Your task to perform on an android device: turn off notifications in google photos Image 0: 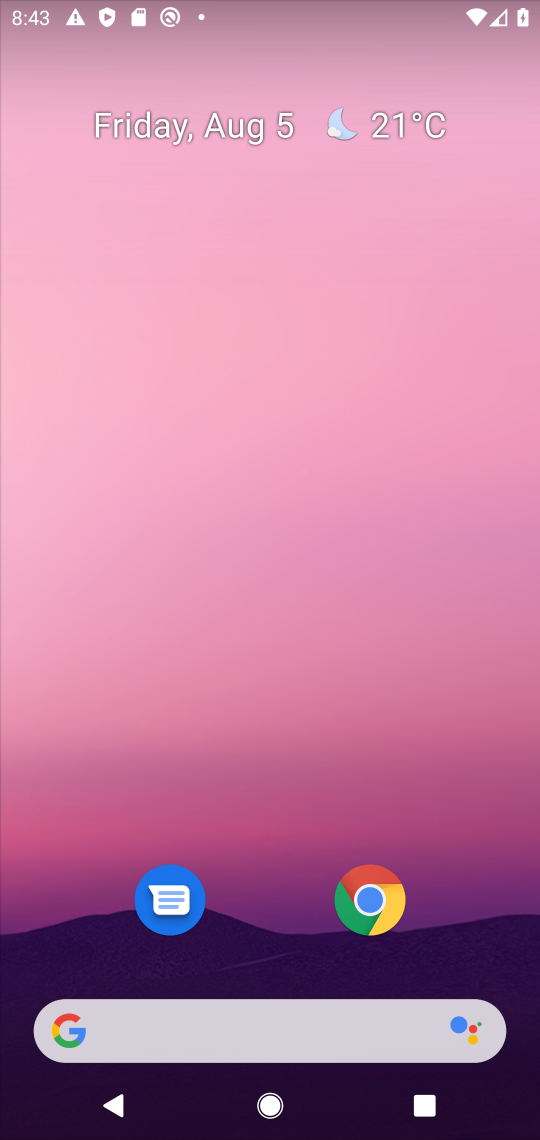
Step 0: press home button
Your task to perform on an android device: turn off notifications in google photos Image 1: 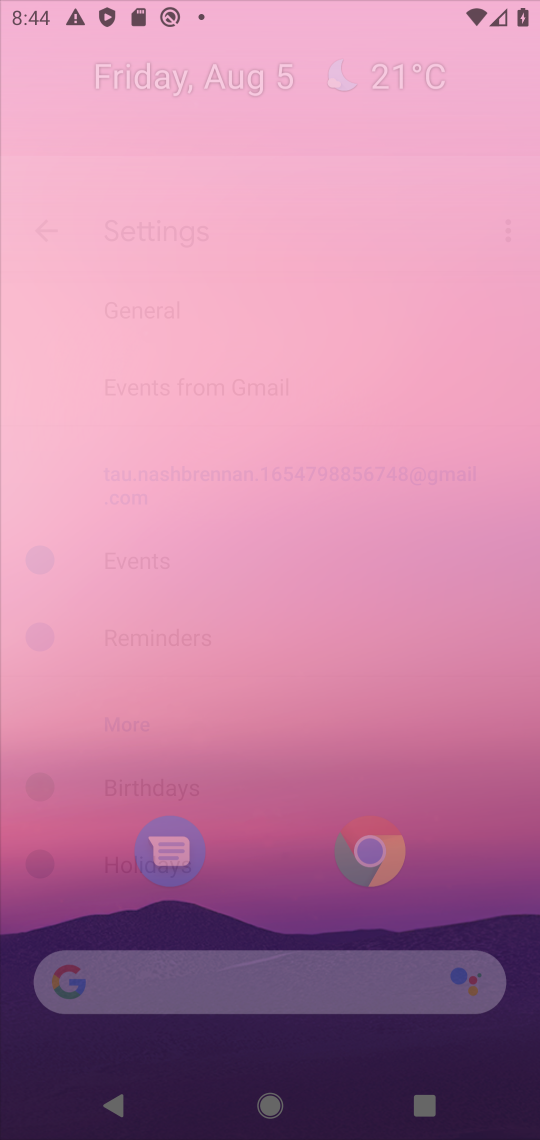
Step 1: click (378, 894)
Your task to perform on an android device: turn off notifications in google photos Image 2: 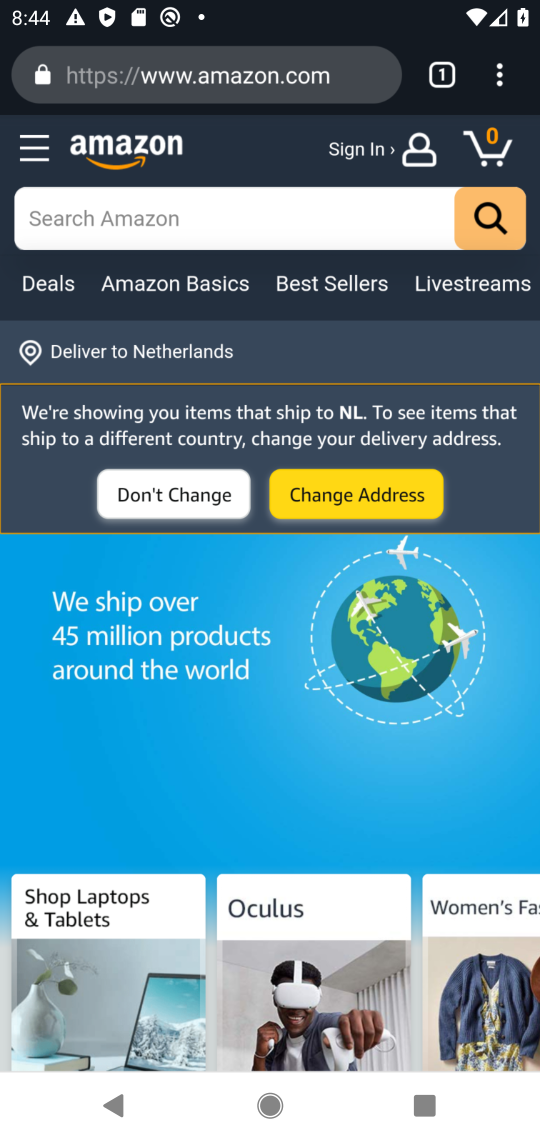
Step 2: press home button
Your task to perform on an android device: turn off notifications in google photos Image 3: 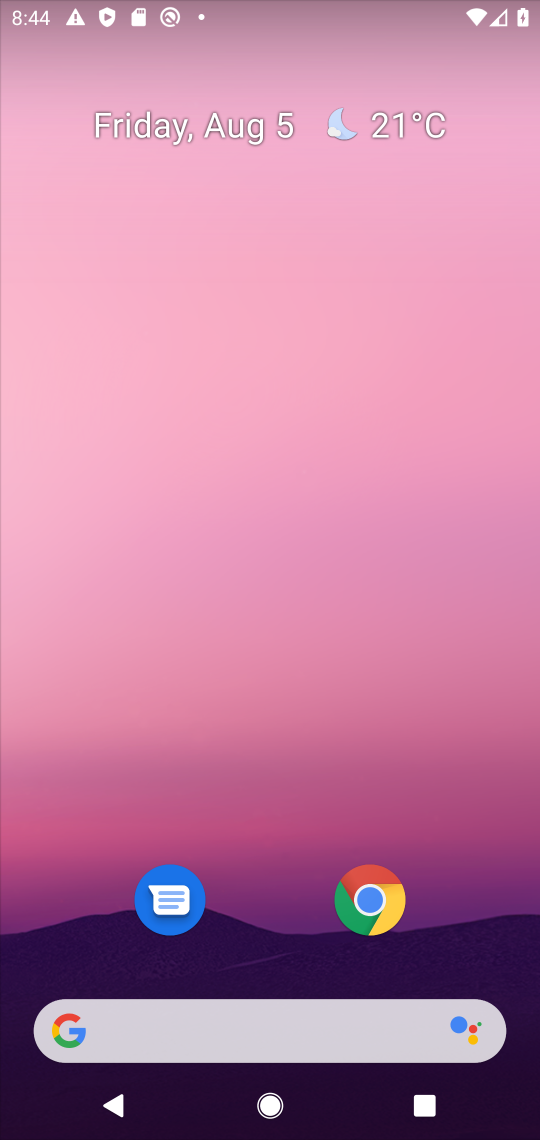
Step 3: click (355, 937)
Your task to perform on an android device: turn off notifications in google photos Image 4: 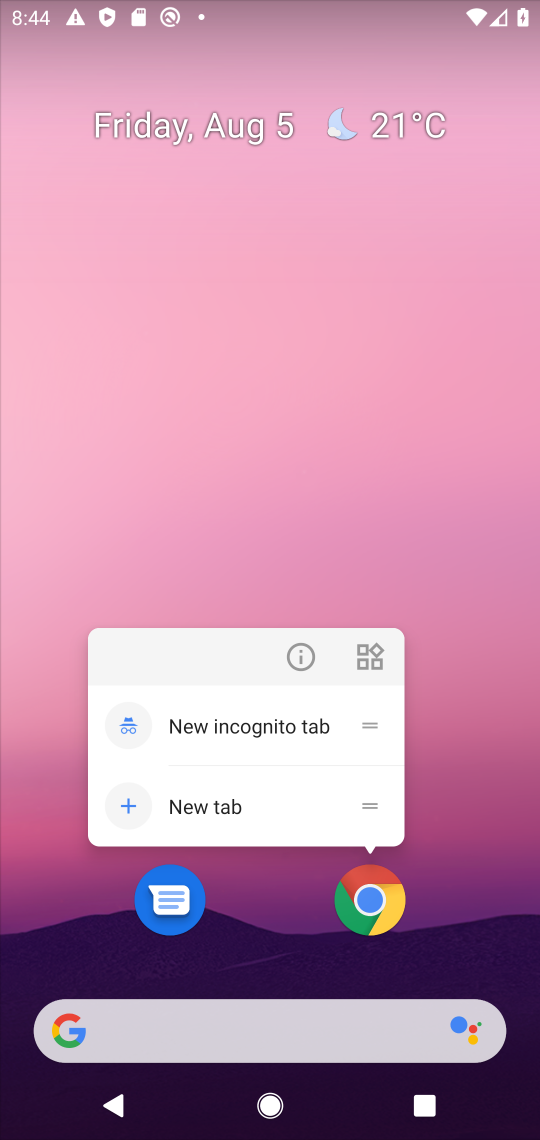
Step 4: click (261, 932)
Your task to perform on an android device: turn off notifications in google photos Image 5: 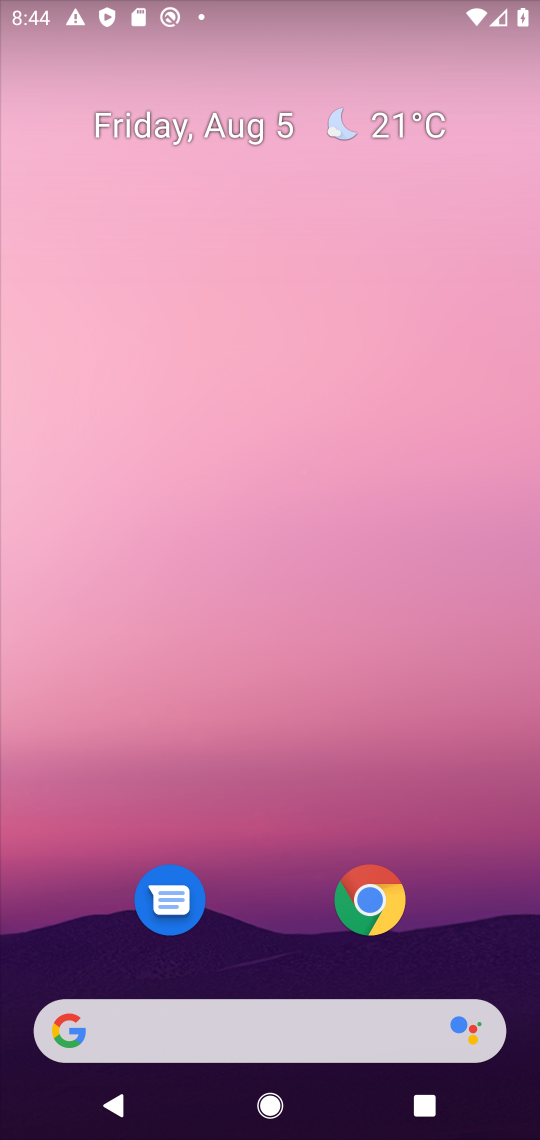
Step 5: drag from (261, 932) to (336, 72)
Your task to perform on an android device: turn off notifications in google photos Image 6: 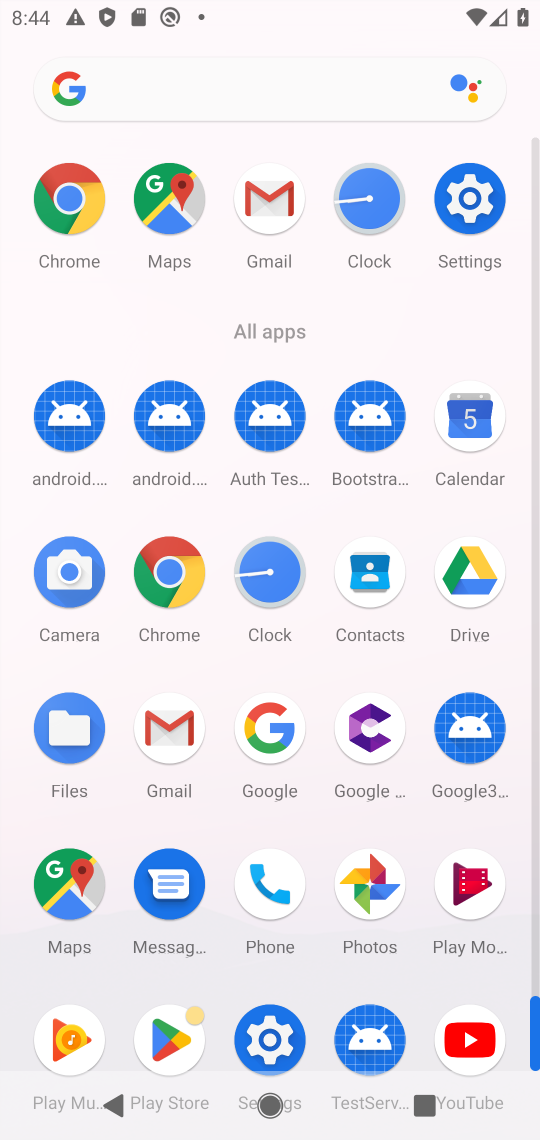
Step 6: click (344, 899)
Your task to perform on an android device: turn off notifications in google photos Image 7: 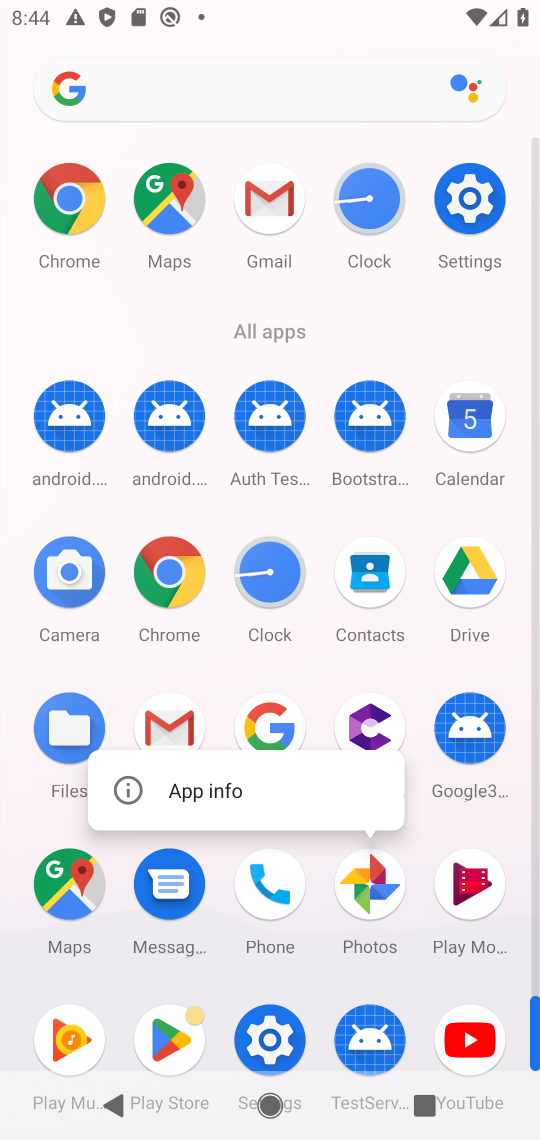
Step 7: click (364, 791)
Your task to perform on an android device: turn off notifications in google photos Image 8: 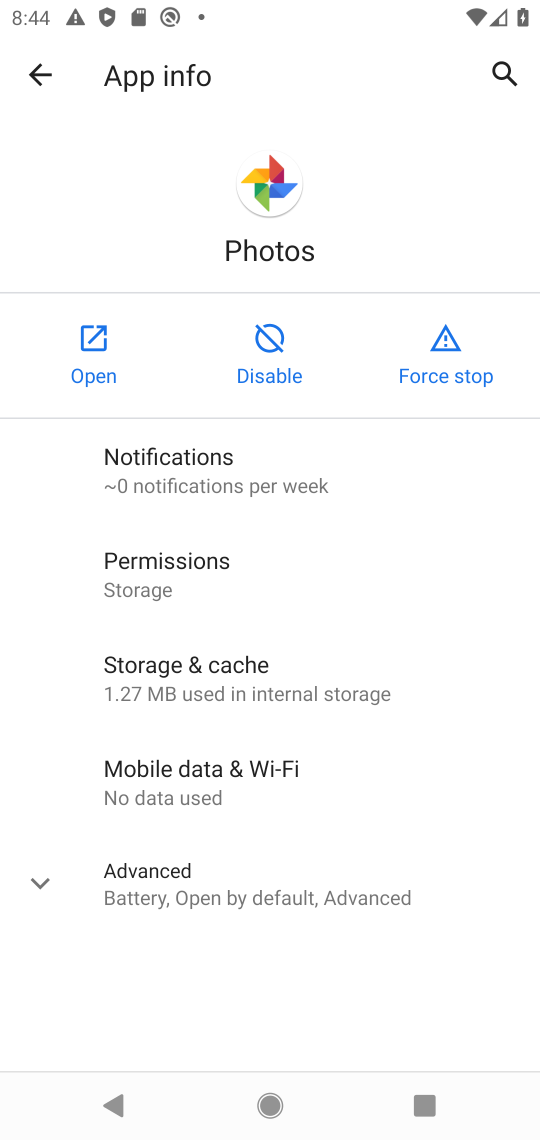
Step 8: click (146, 500)
Your task to perform on an android device: turn off notifications in google photos Image 9: 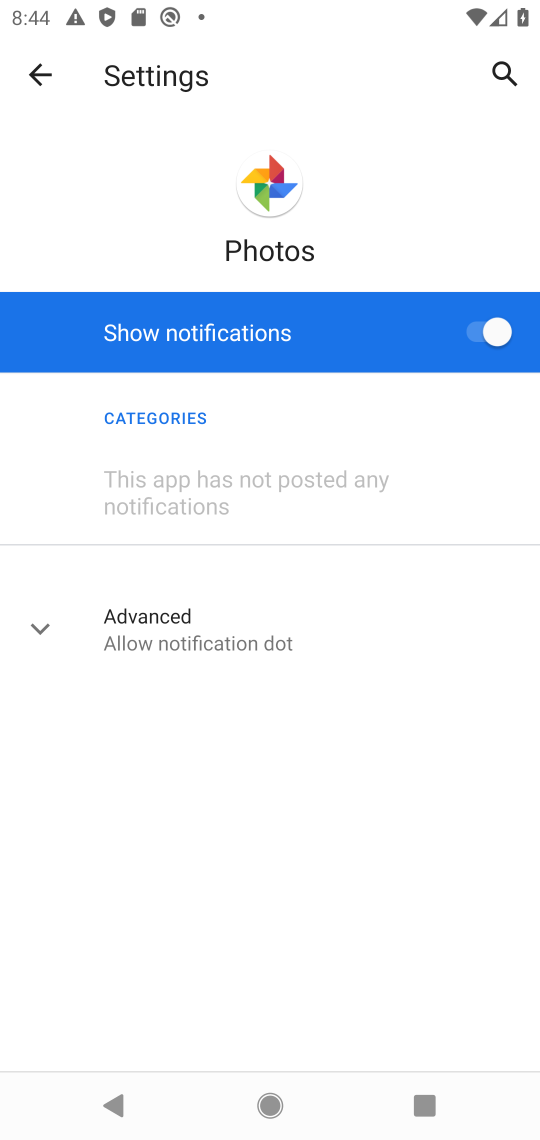
Step 9: click (391, 329)
Your task to perform on an android device: turn off notifications in google photos Image 10: 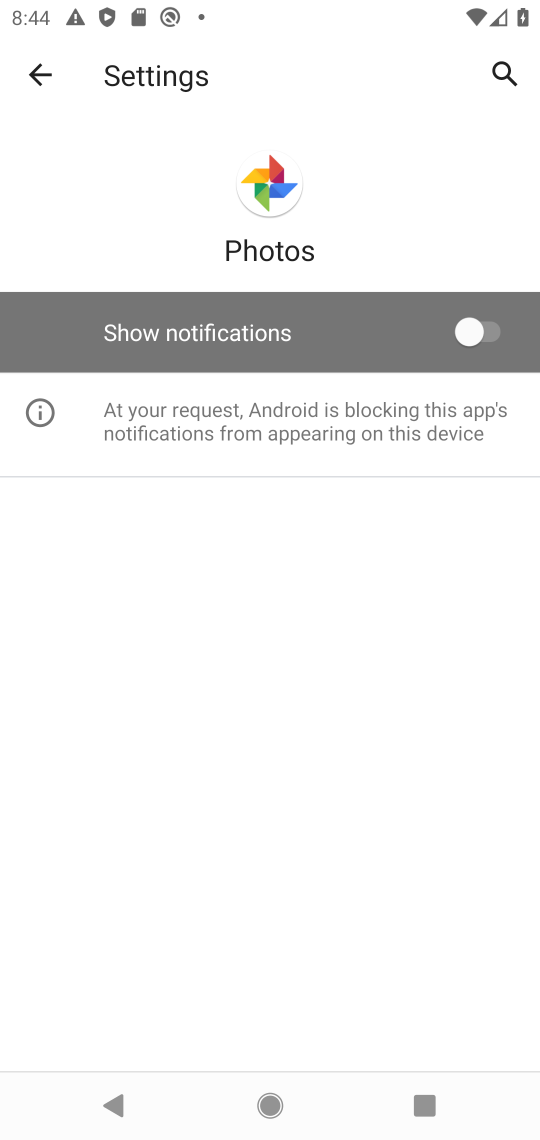
Step 10: task complete